Your task to perform on an android device: Check the news Image 0: 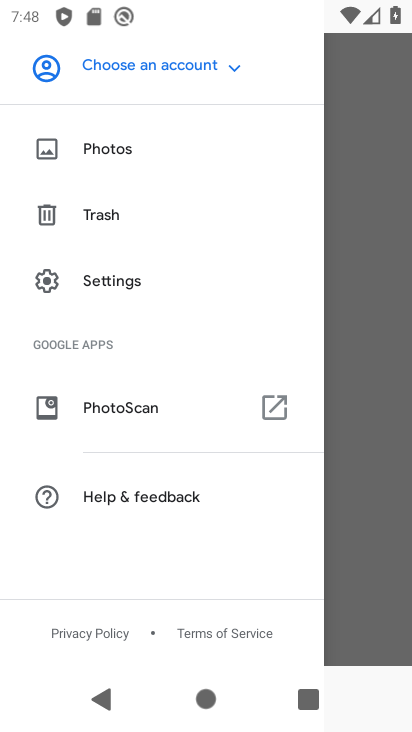
Step 0: press home button
Your task to perform on an android device: Check the news Image 1: 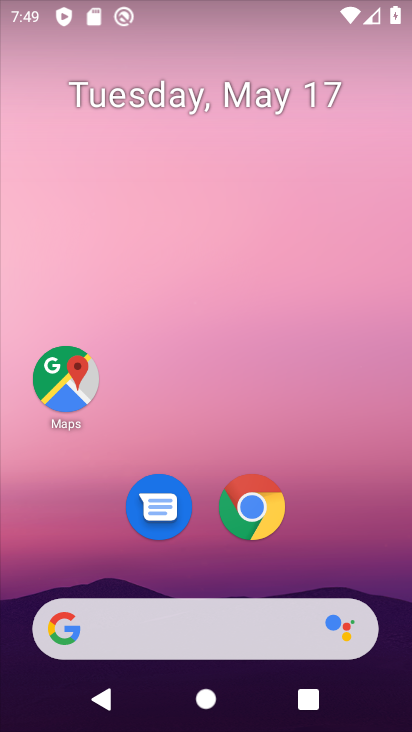
Step 1: click (155, 628)
Your task to perform on an android device: Check the news Image 2: 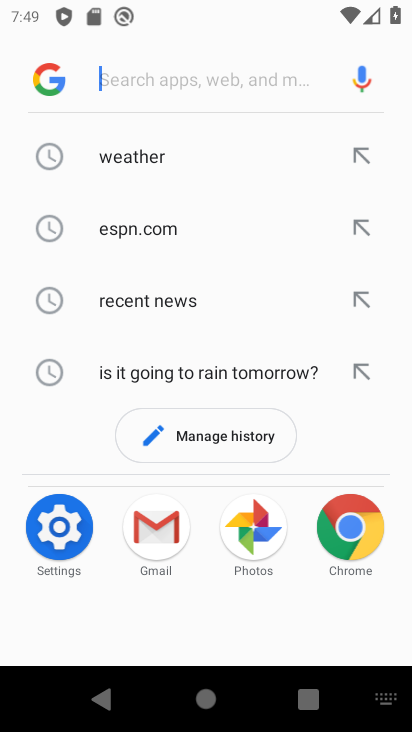
Step 2: type "news"
Your task to perform on an android device: Check the news Image 3: 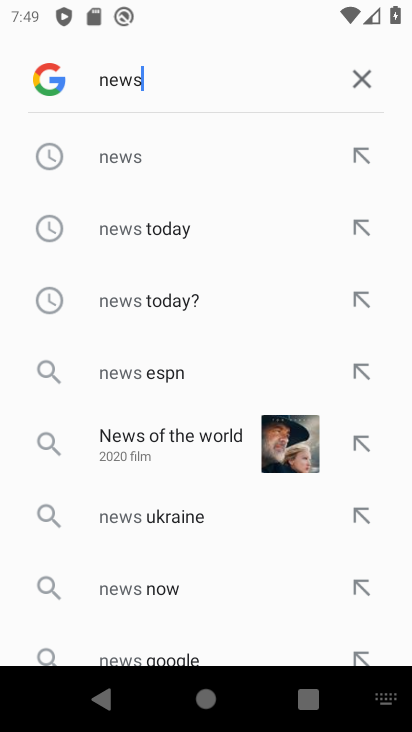
Step 3: click (146, 164)
Your task to perform on an android device: Check the news Image 4: 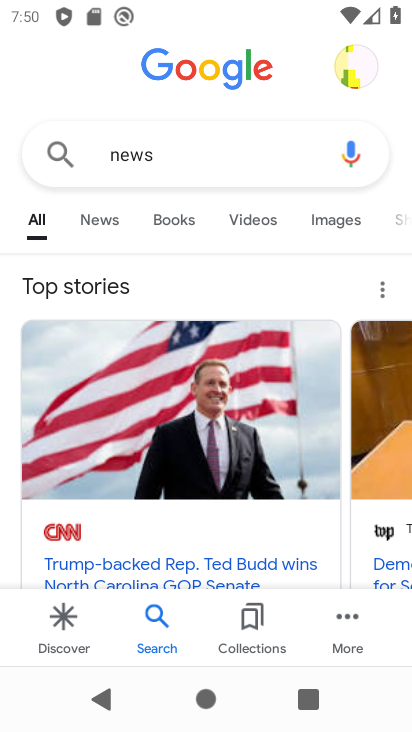
Step 4: click (96, 223)
Your task to perform on an android device: Check the news Image 5: 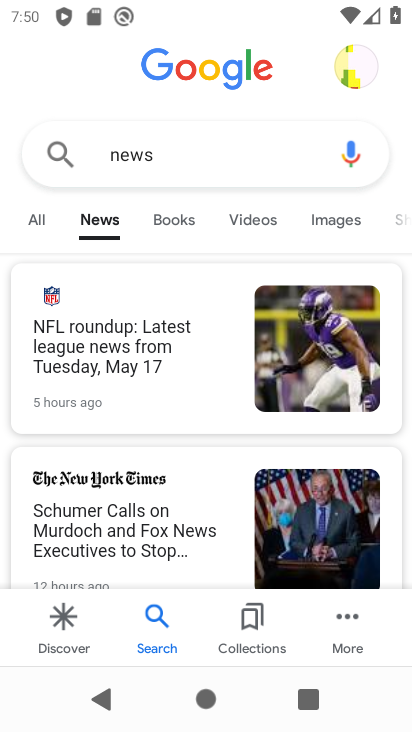
Step 5: task complete